Your task to perform on an android device: open chrome privacy settings Image 0: 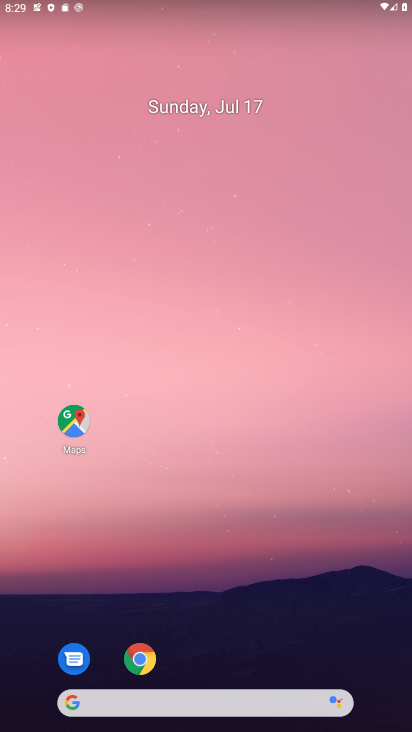
Step 0: click (144, 659)
Your task to perform on an android device: open chrome privacy settings Image 1: 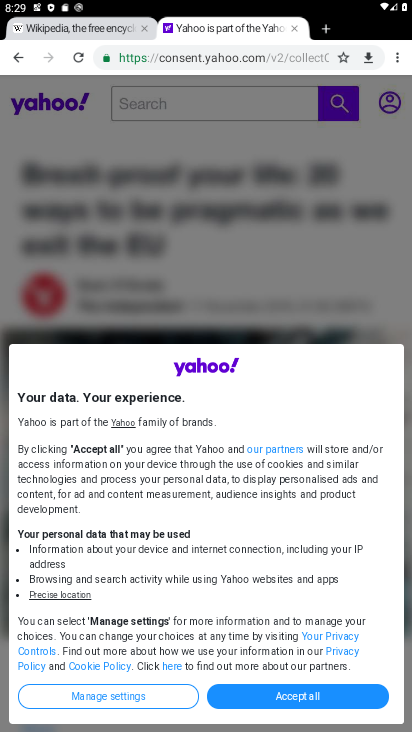
Step 1: click (392, 47)
Your task to perform on an android device: open chrome privacy settings Image 2: 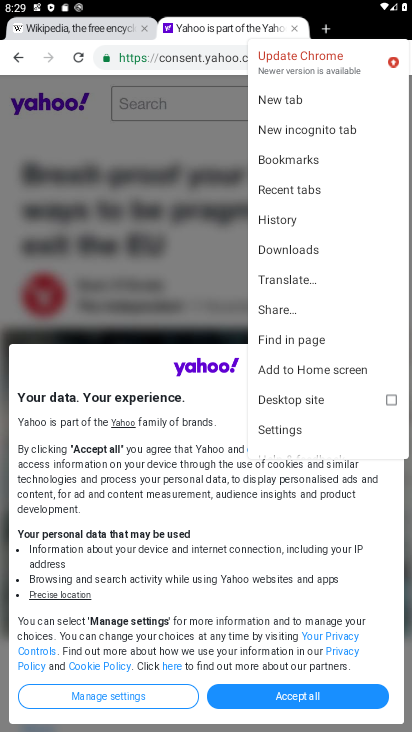
Step 2: click (301, 430)
Your task to perform on an android device: open chrome privacy settings Image 3: 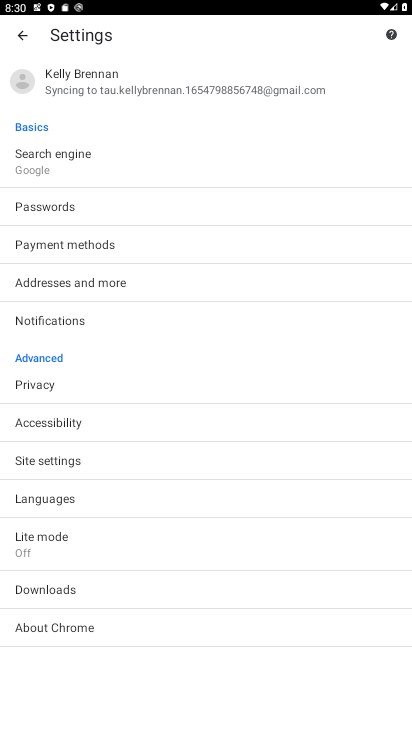
Step 3: click (90, 394)
Your task to perform on an android device: open chrome privacy settings Image 4: 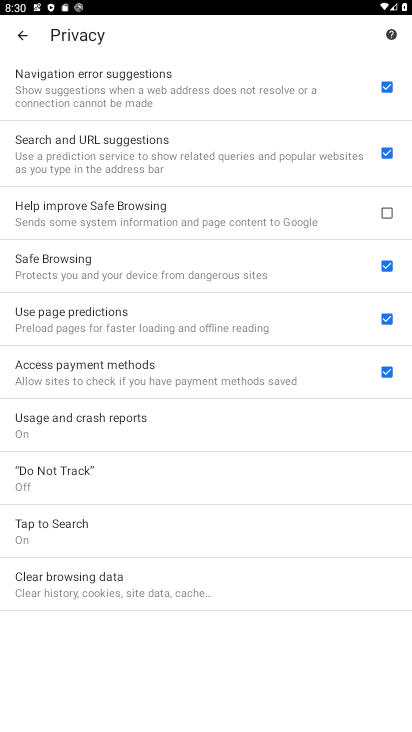
Step 4: task complete